Your task to perform on an android device: Show the shopping cart on target. Add acer predator to the cart on target Image 0: 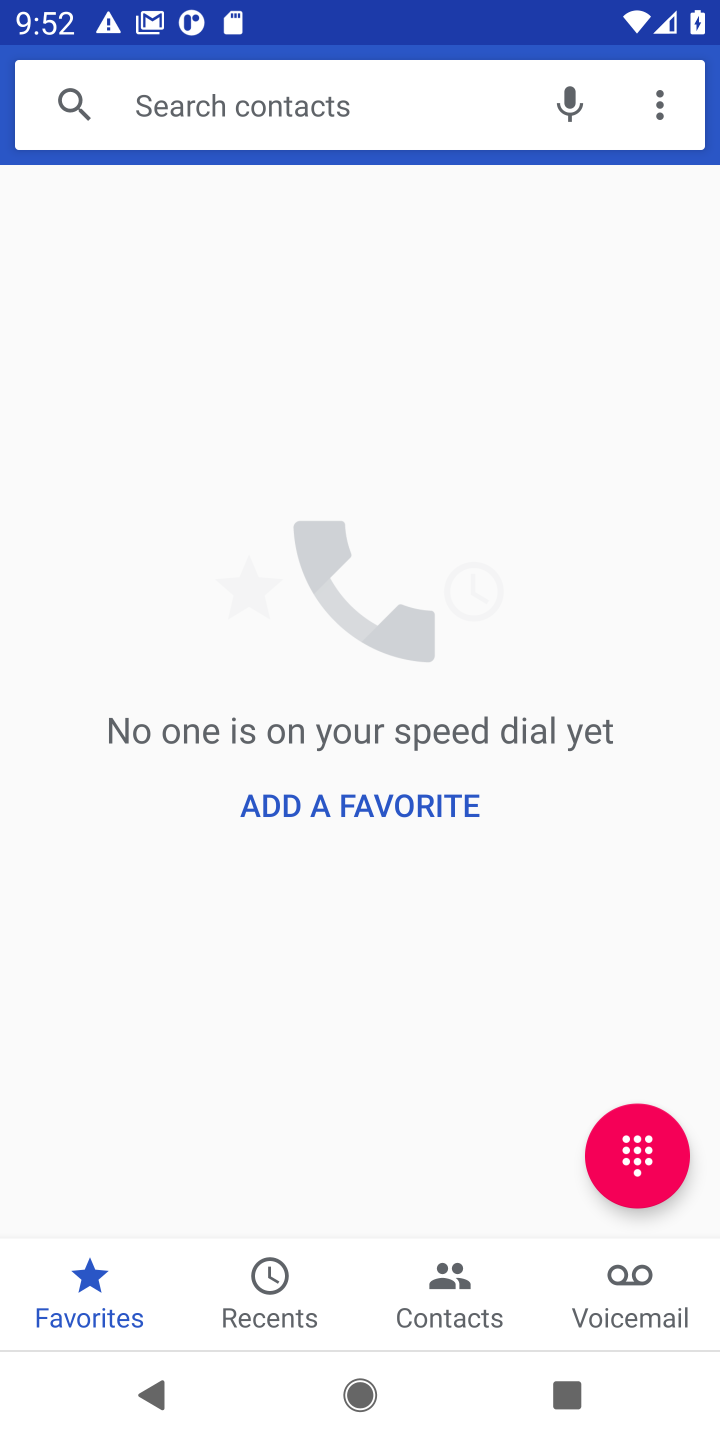
Step 0: press home button
Your task to perform on an android device: Show the shopping cart on target. Add acer predator to the cart on target Image 1: 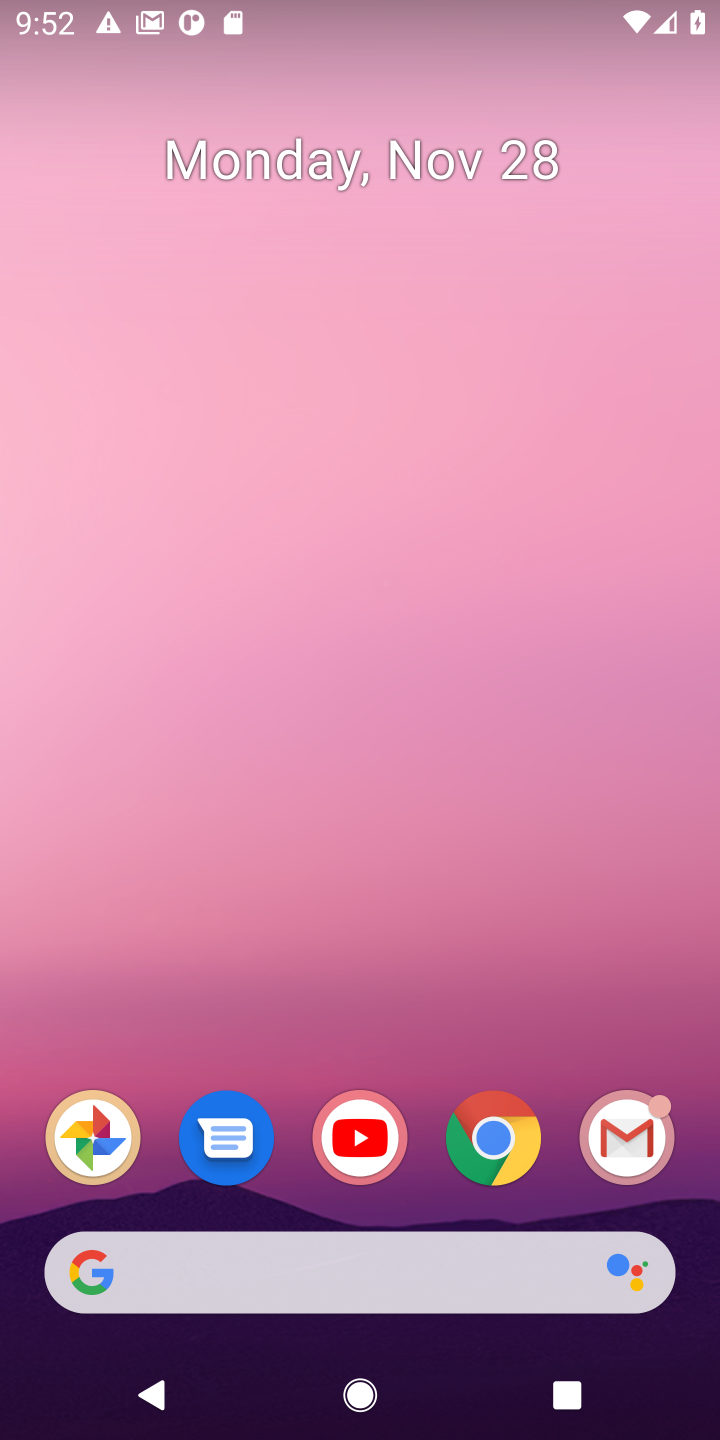
Step 1: click (509, 1133)
Your task to perform on an android device: Show the shopping cart on target. Add acer predator to the cart on target Image 2: 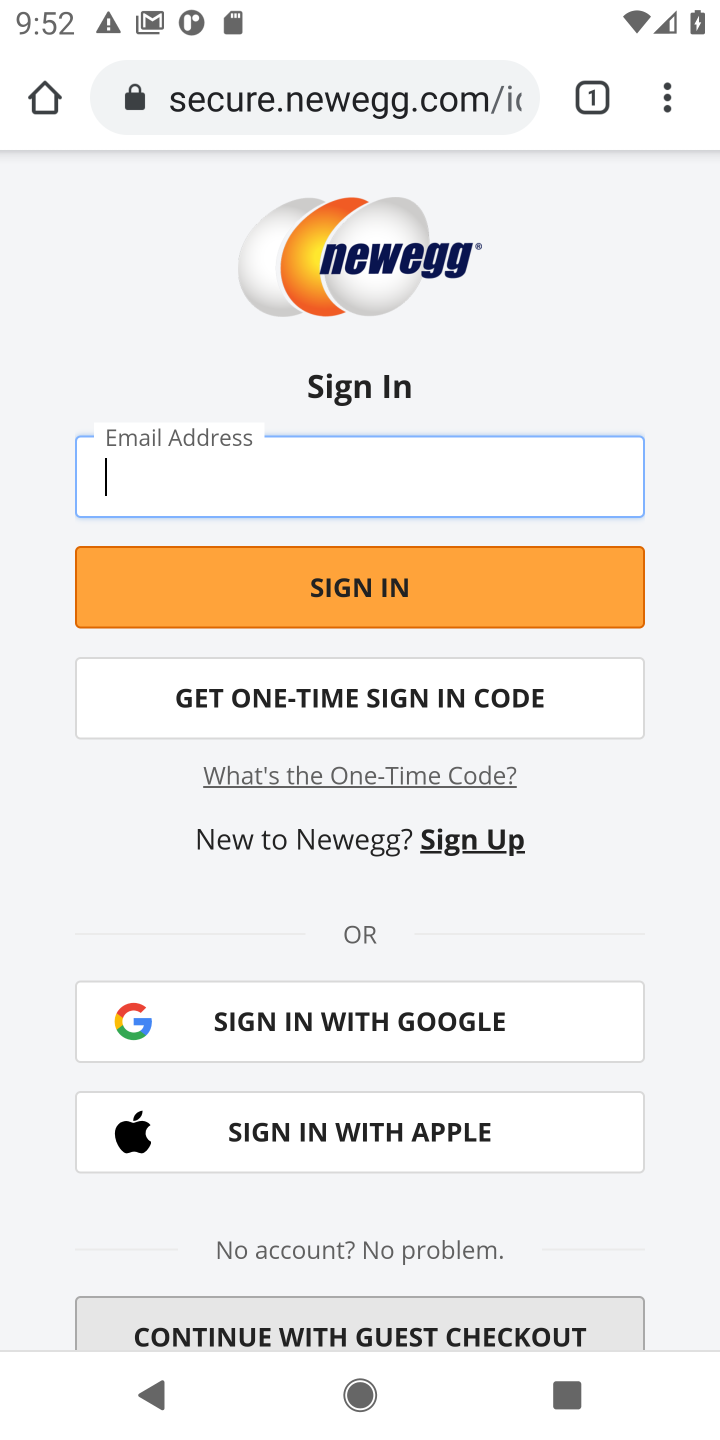
Step 2: click (311, 99)
Your task to perform on an android device: Show the shopping cart on target. Add acer predator to the cart on target Image 3: 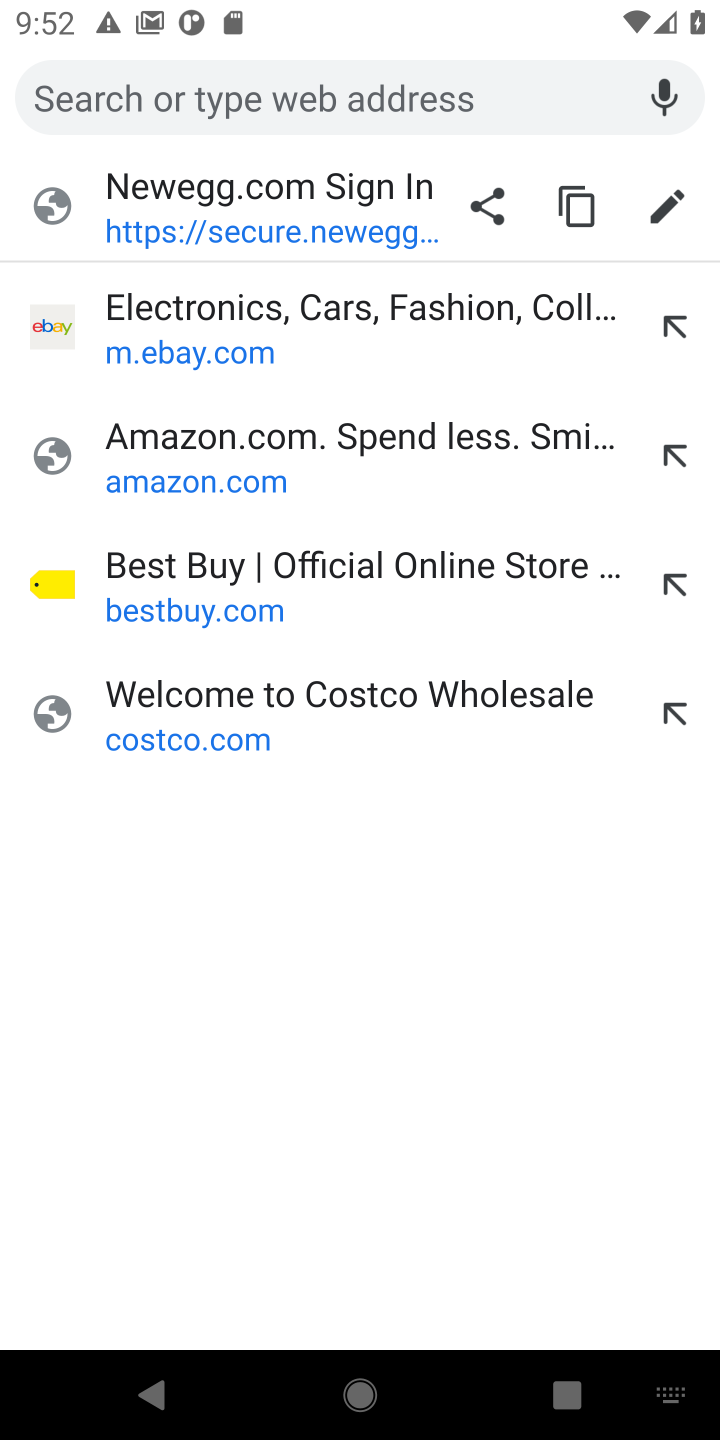
Step 3: type "target.com"
Your task to perform on an android device: Show the shopping cart on target. Add acer predator to the cart on target Image 4: 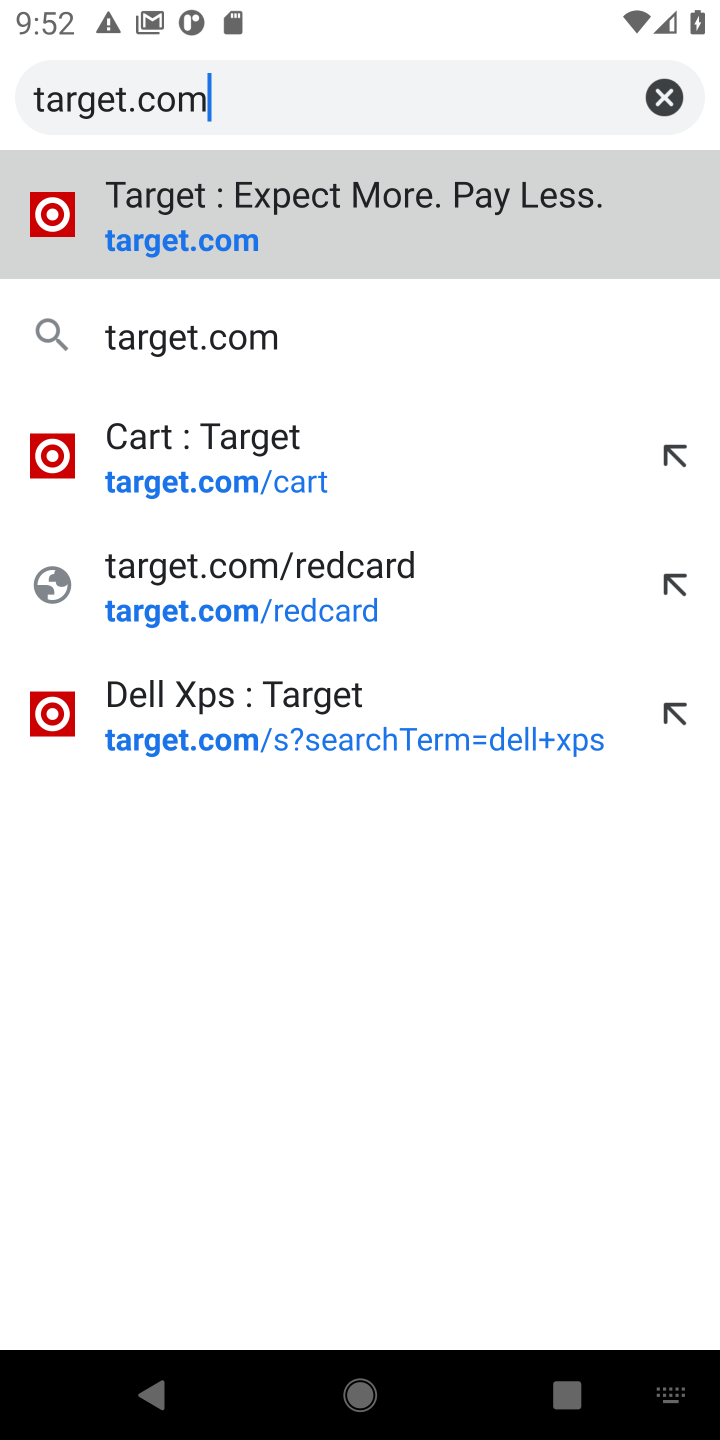
Step 4: click (163, 216)
Your task to perform on an android device: Show the shopping cart on target. Add acer predator to the cart on target Image 5: 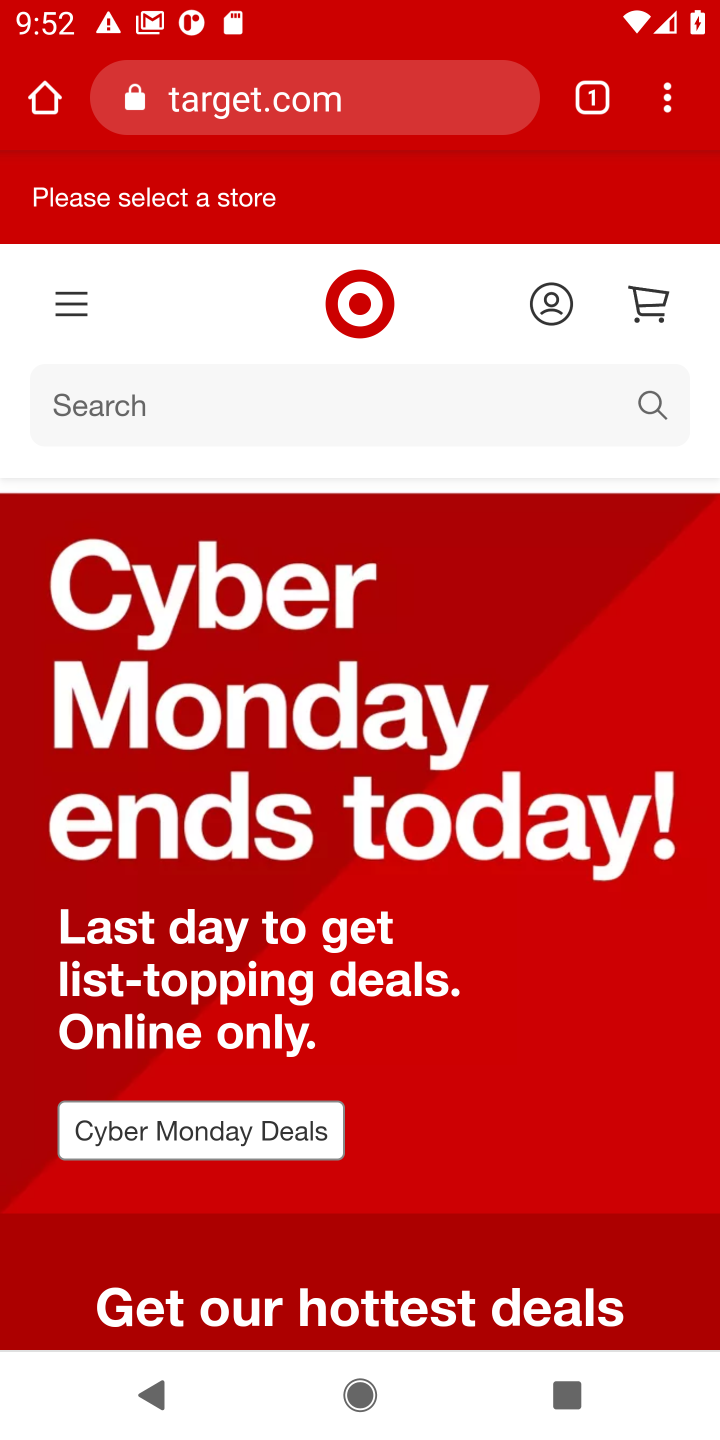
Step 5: click (641, 319)
Your task to perform on an android device: Show the shopping cart on target. Add acer predator to the cart on target Image 6: 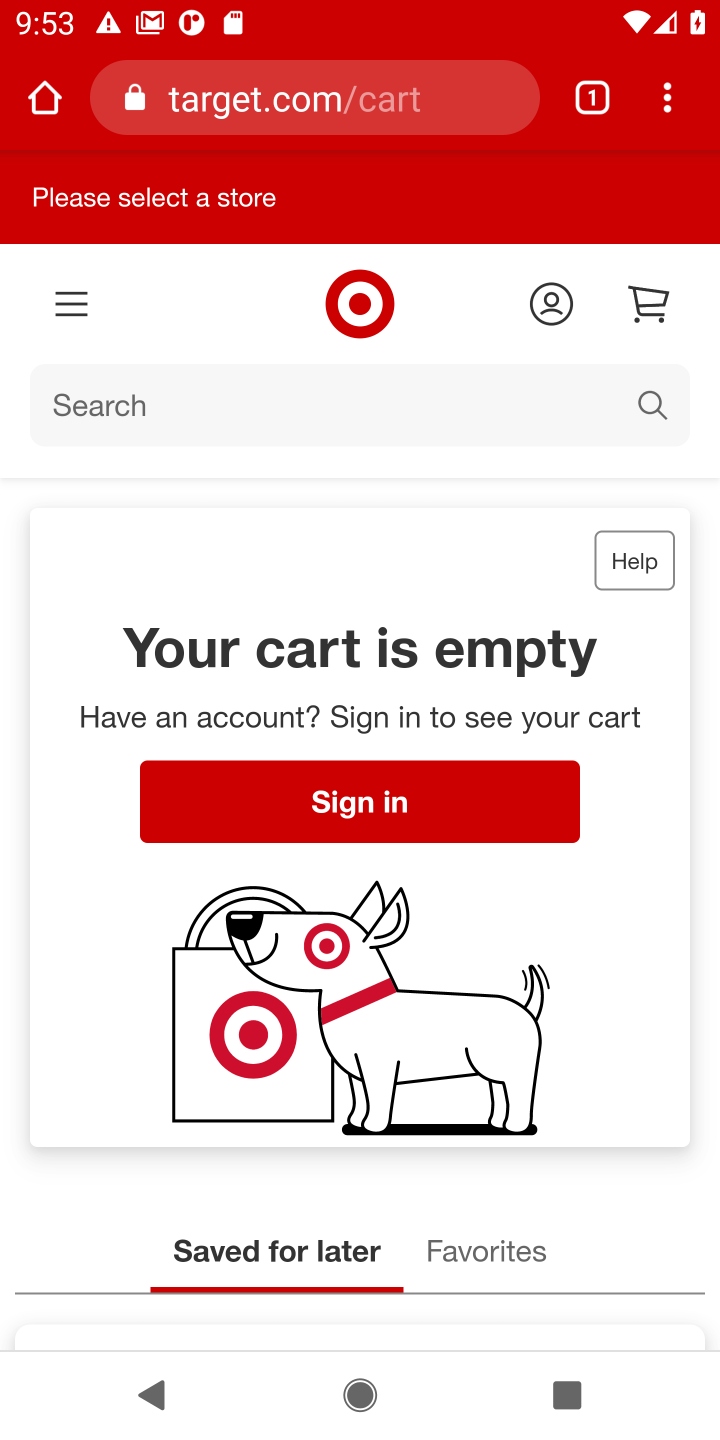
Step 6: click (138, 415)
Your task to perform on an android device: Show the shopping cart on target. Add acer predator to the cart on target Image 7: 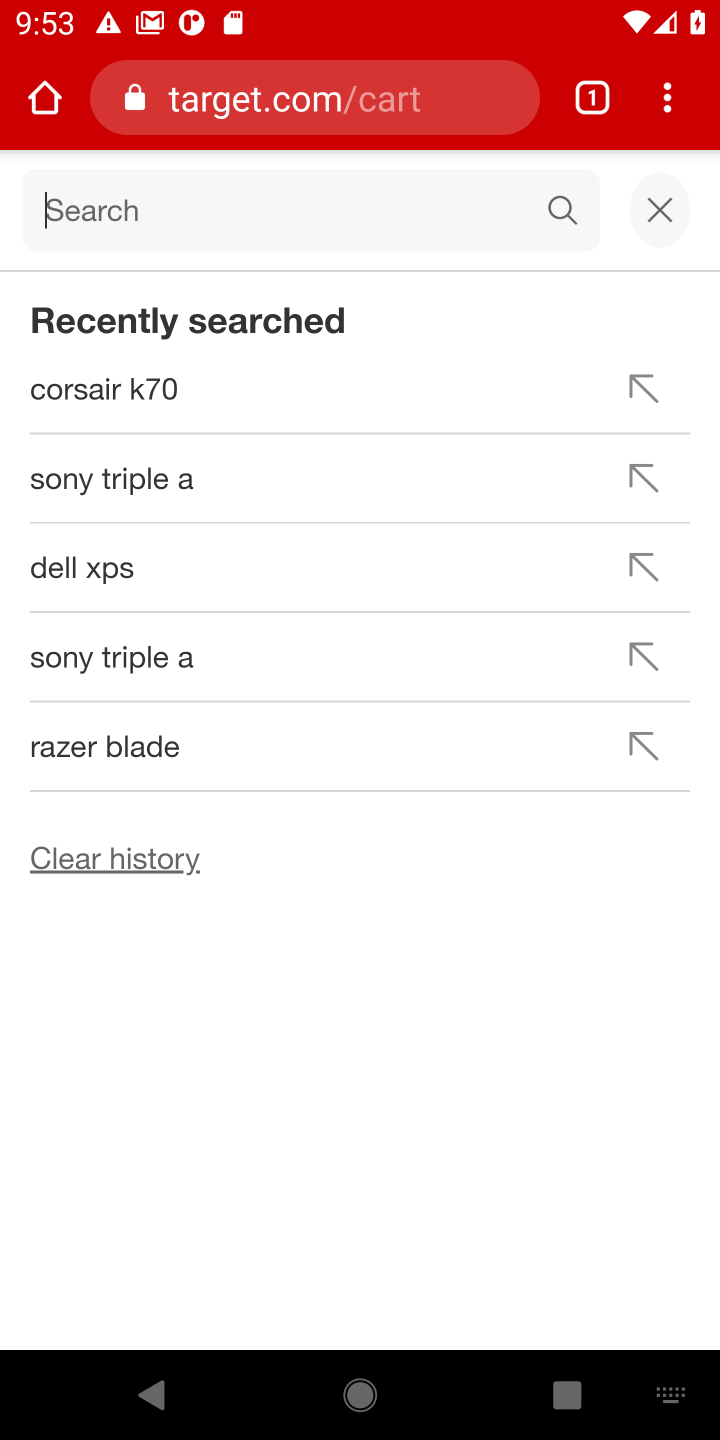
Step 7: click (79, 227)
Your task to perform on an android device: Show the shopping cart on target. Add acer predator to the cart on target Image 8: 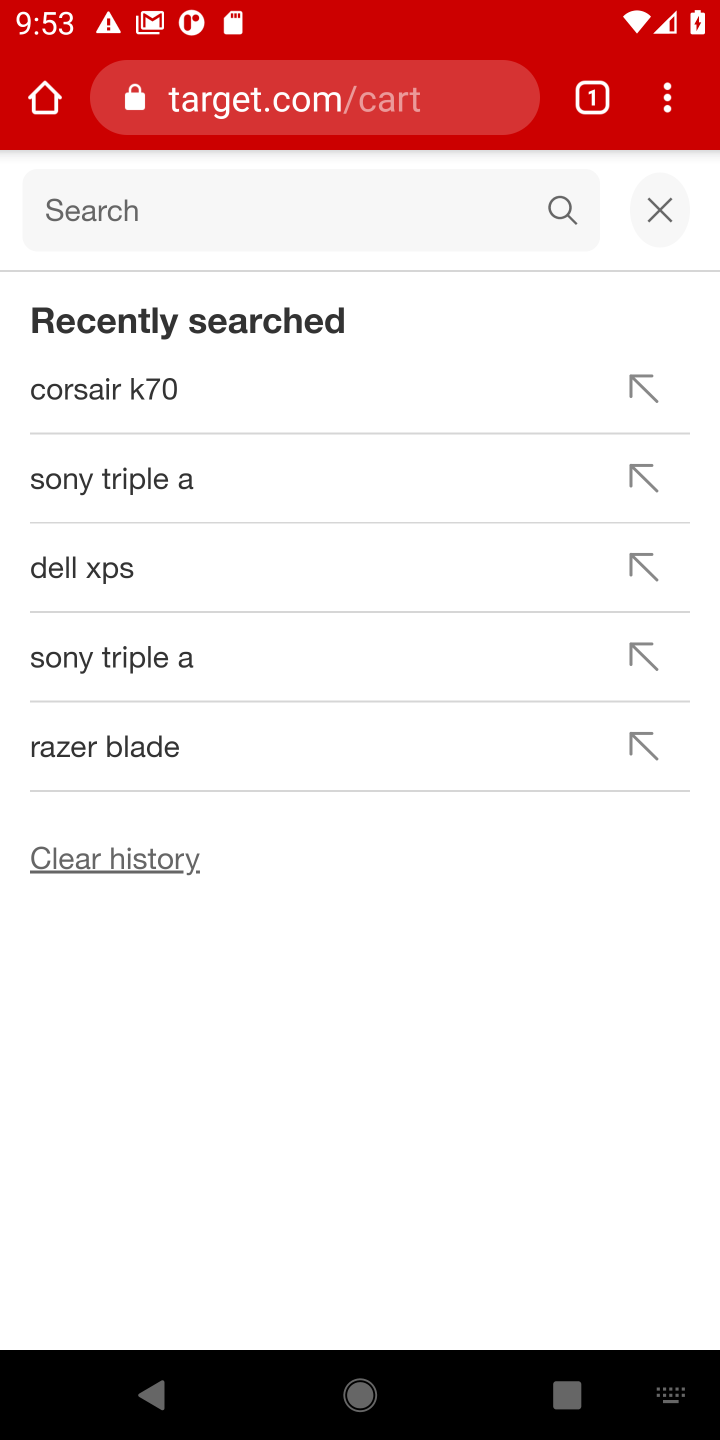
Step 8: type "acer predator"
Your task to perform on an android device: Show the shopping cart on target. Add acer predator to the cart on target Image 9: 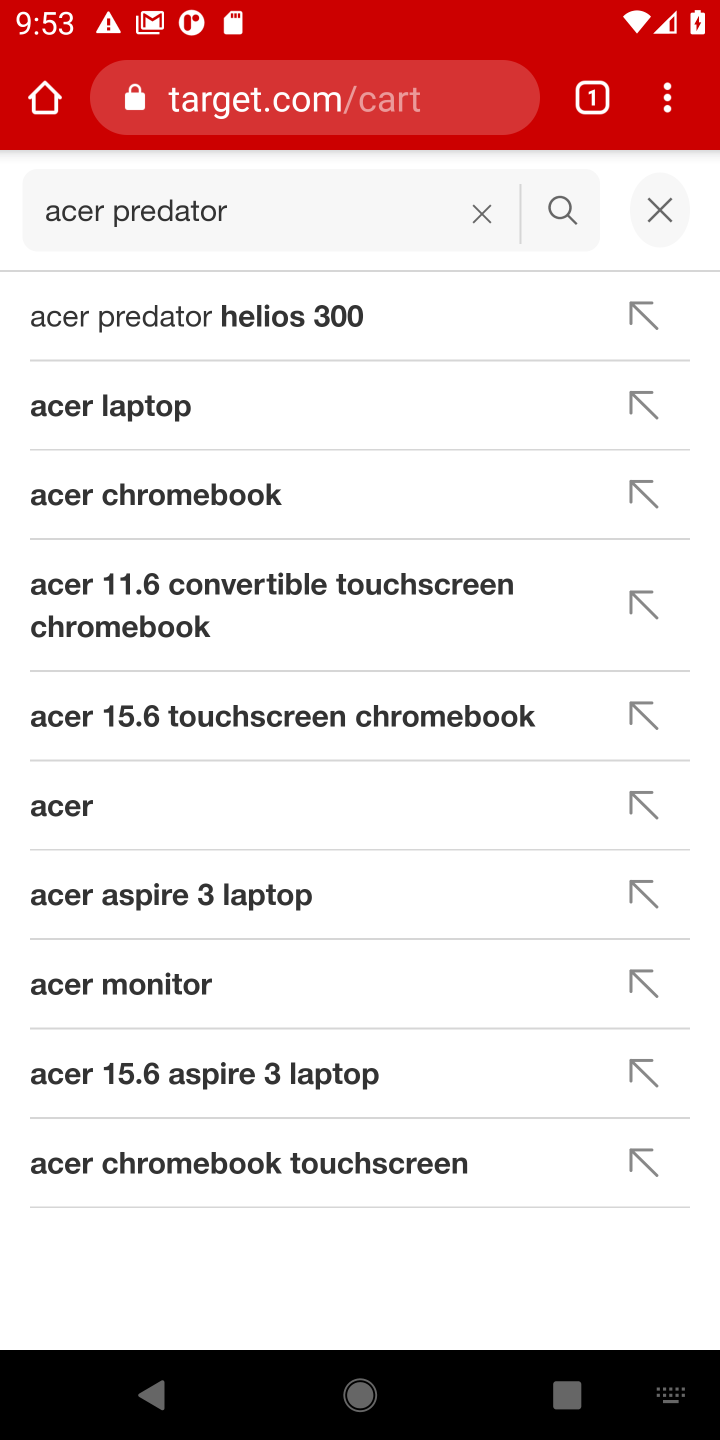
Step 9: click (552, 206)
Your task to perform on an android device: Show the shopping cart on target. Add acer predator to the cart on target Image 10: 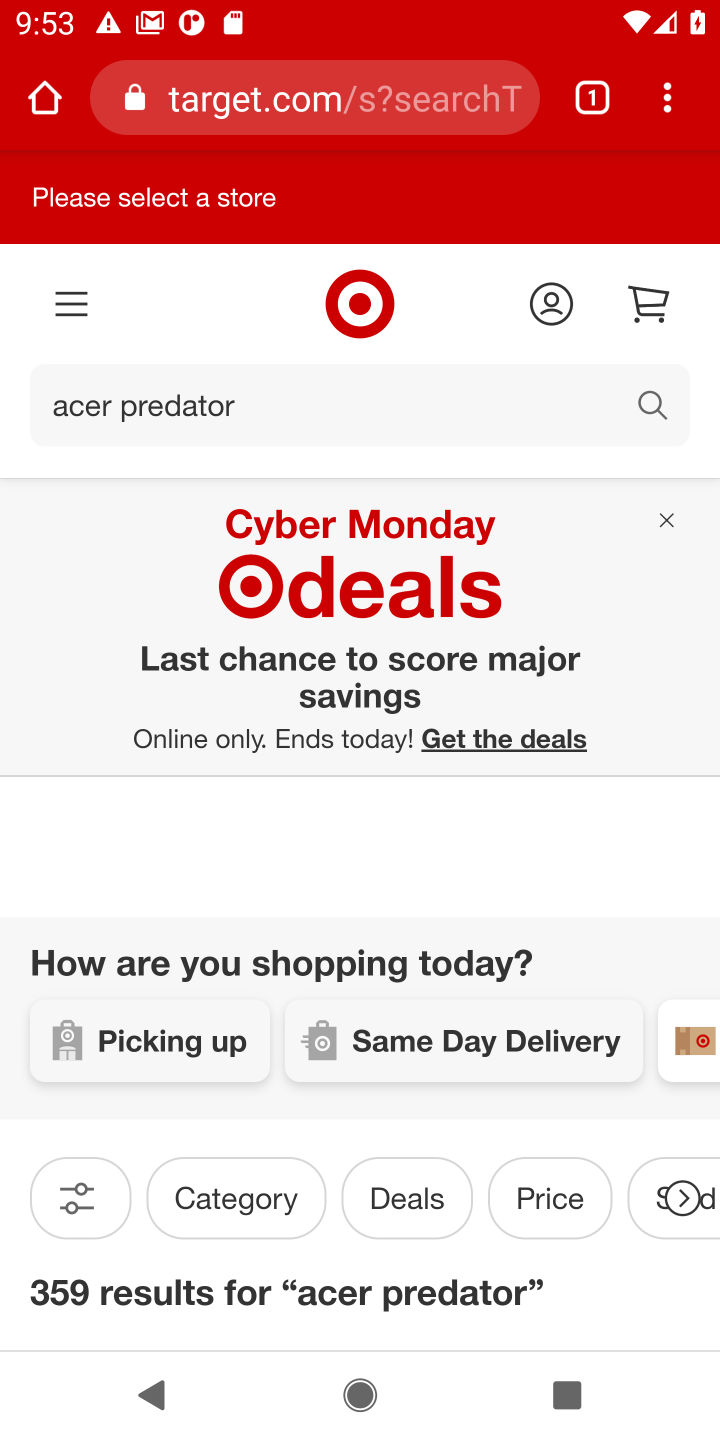
Step 10: drag from (592, 929) to (556, 409)
Your task to perform on an android device: Show the shopping cart on target. Add acer predator to the cart on target Image 11: 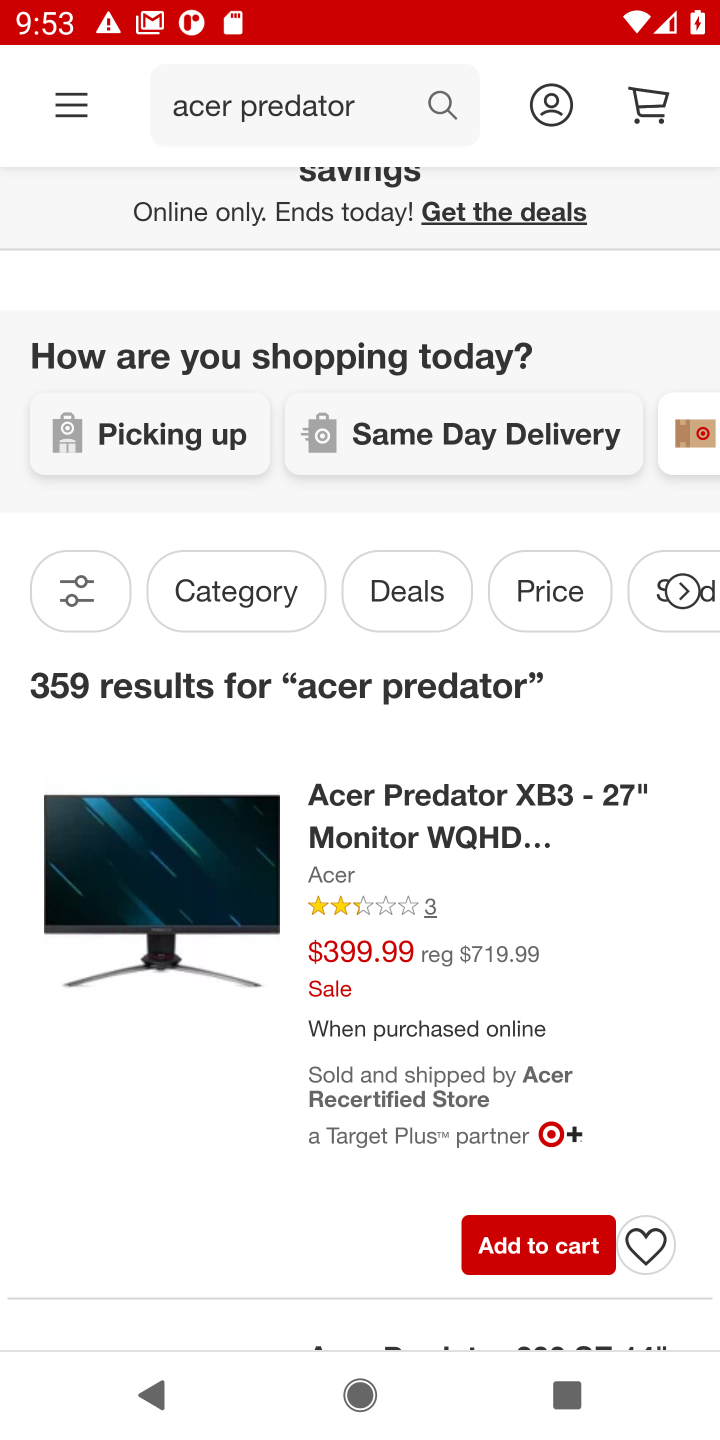
Step 11: click (523, 1252)
Your task to perform on an android device: Show the shopping cart on target. Add acer predator to the cart on target Image 12: 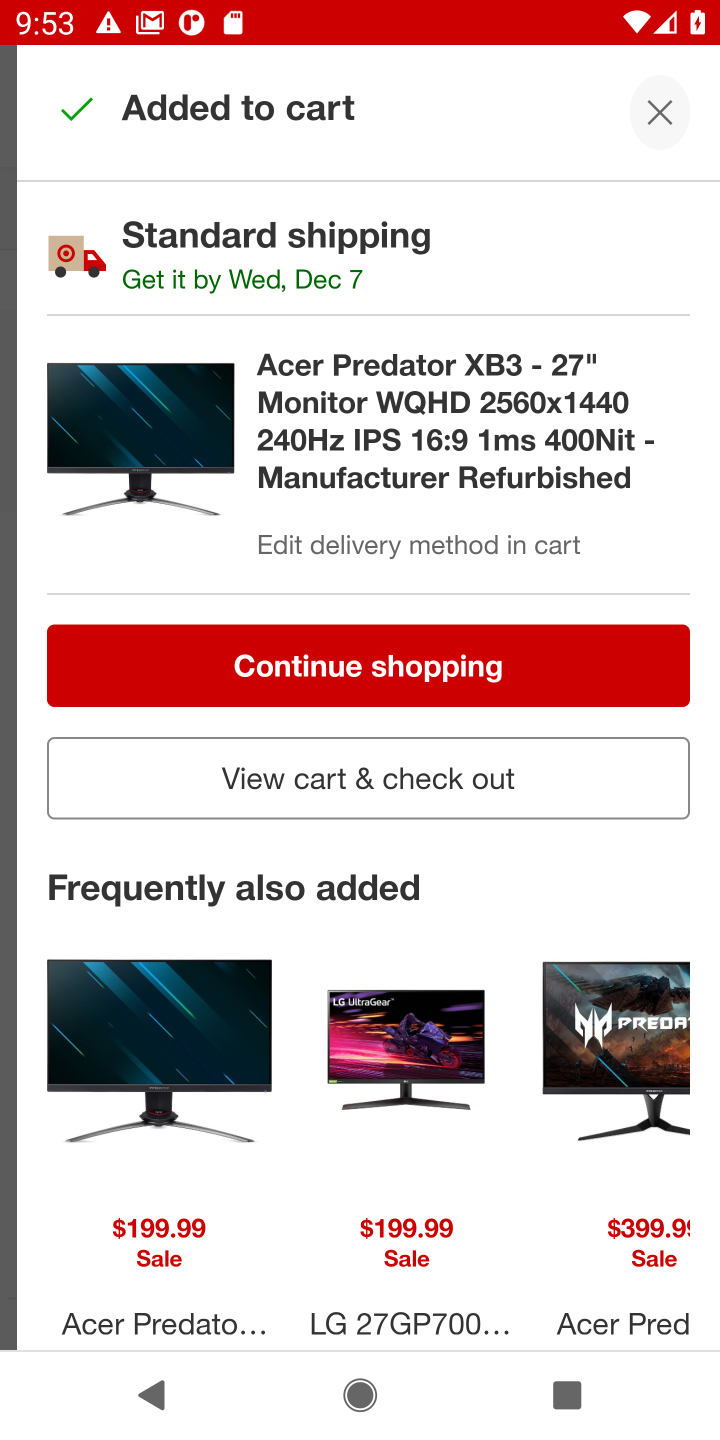
Step 12: task complete